Your task to perform on an android device: Go to Wikipedia Image 0: 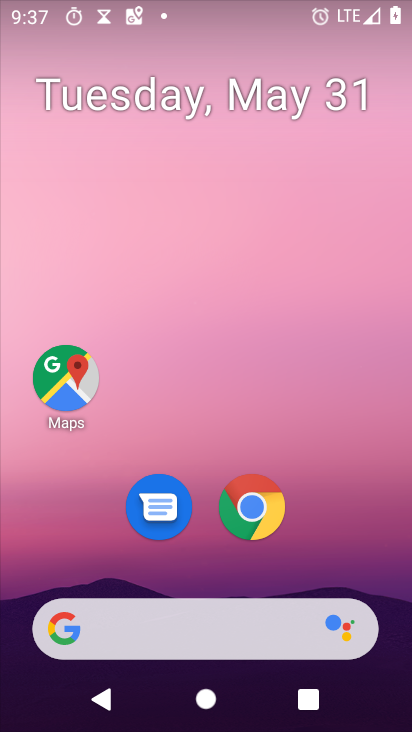
Step 0: click (253, 527)
Your task to perform on an android device: Go to Wikipedia Image 1: 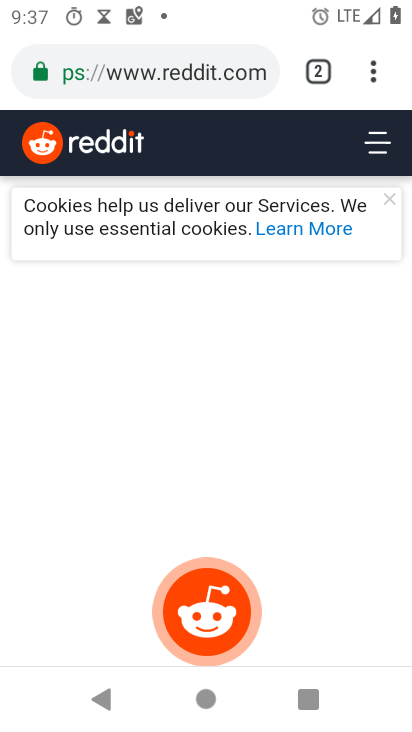
Step 1: click (329, 77)
Your task to perform on an android device: Go to Wikipedia Image 2: 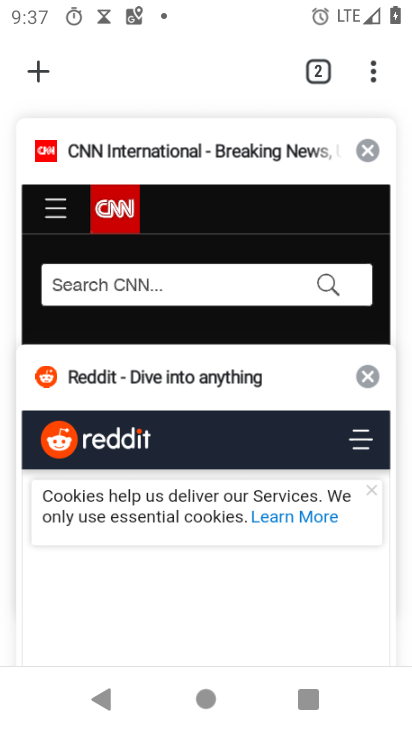
Step 2: click (357, 162)
Your task to perform on an android device: Go to Wikipedia Image 3: 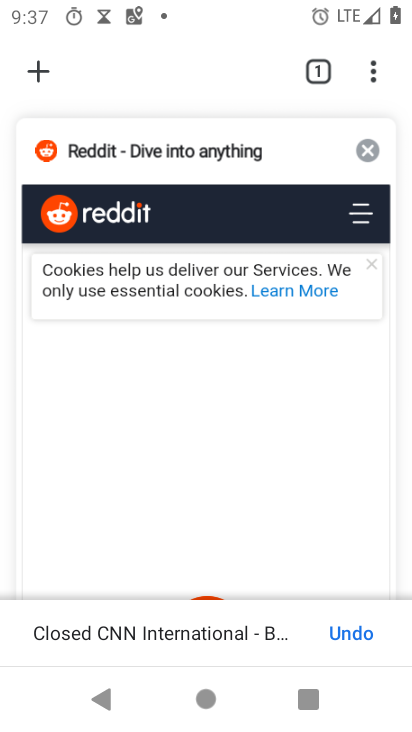
Step 3: click (367, 149)
Your task to perform on an android device: Go to Wikipedia Image 4: 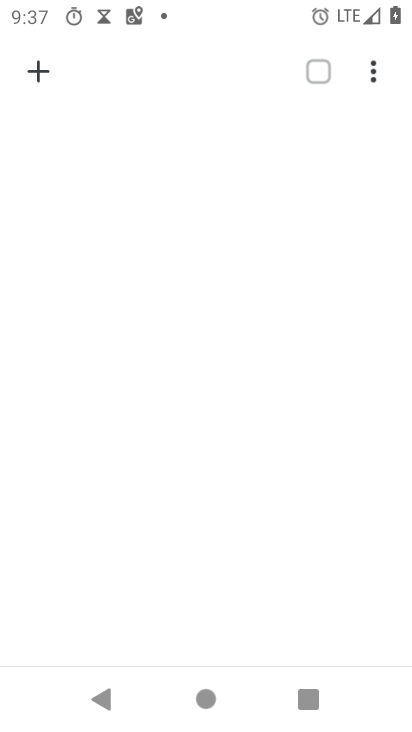
Step 4: click (25, 77)
Your task to perform on an android device: Go to Wikipedia Image 5: 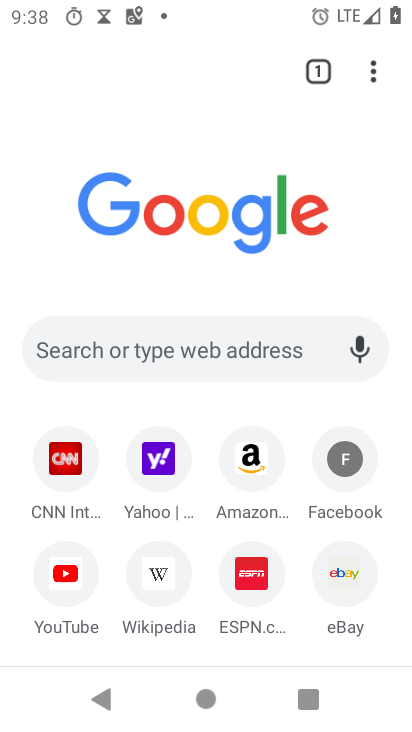
Step 5: click (146, 565)
Your task to perform on an android device: Go to Wikipedia Image 6: 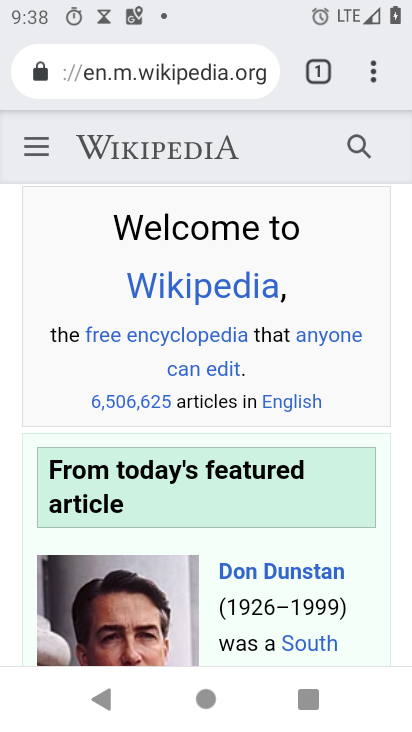
Step 6: task complete